Your task to perform on an android device: set the timer Image 0: 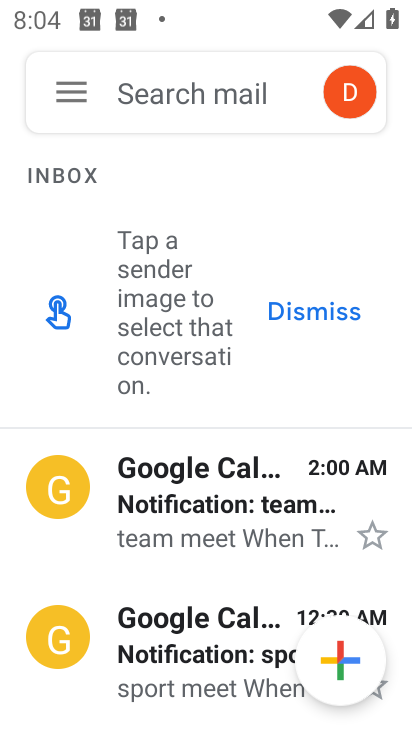
Step 0: press home button
Your task to perform on an android device: set the timer Image 1: 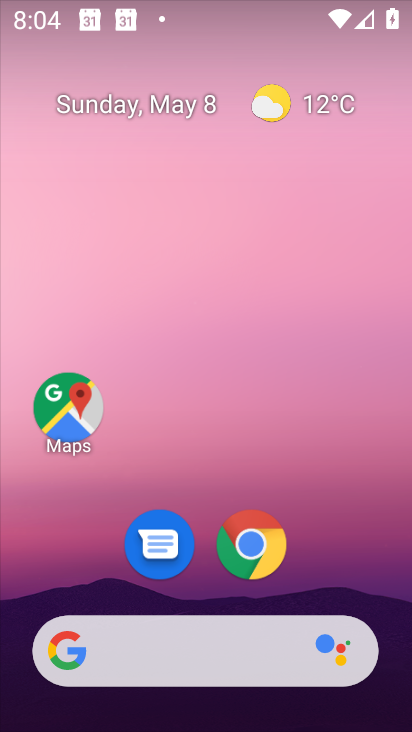
Step 1: drag from (341, 532) to (216, 83)
Your task to perform on an android device: set the timer Image 2: 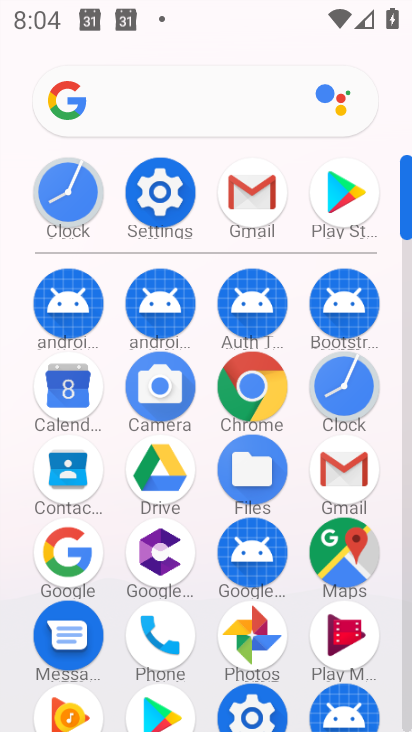
Step 2: click (70, 198)
Your task to perform on an android device: set the timer Image 3: 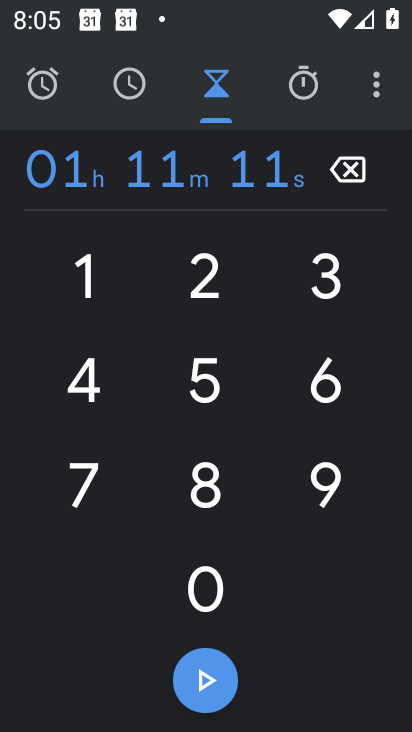
Step 3: task complete